Your task to perform on an android device: Check the weather Image 0: 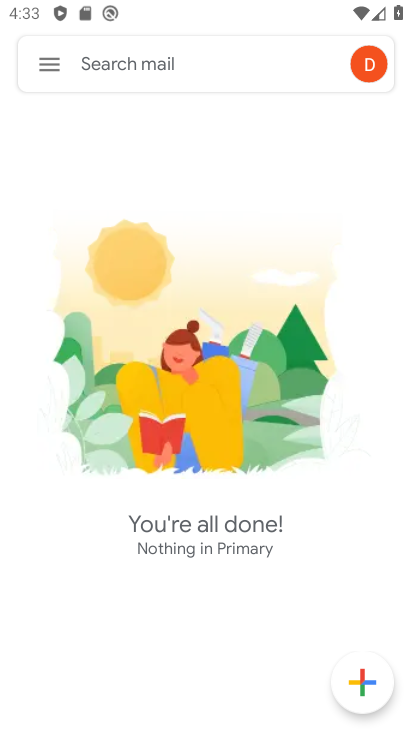
Step 0: press home button
Your task to perform on an android device: Check the weather Image 1: 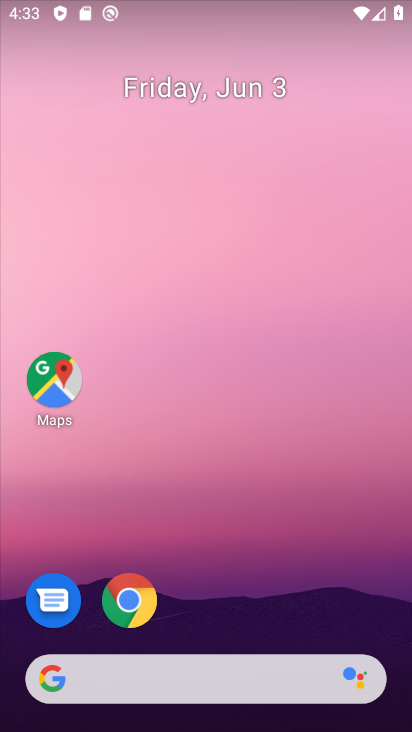
Step 1: click (160, 676)
Your task to perform on an android device: Check the weather Image 2: 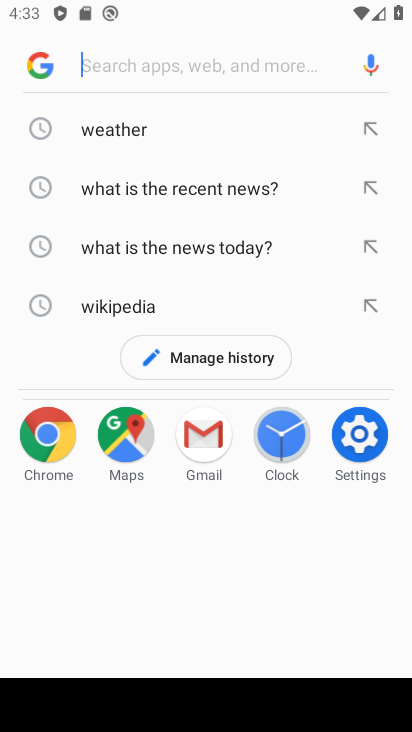
Step 2: click (144, 133)
Your task to perform on an android device: Check the weather Image 3: 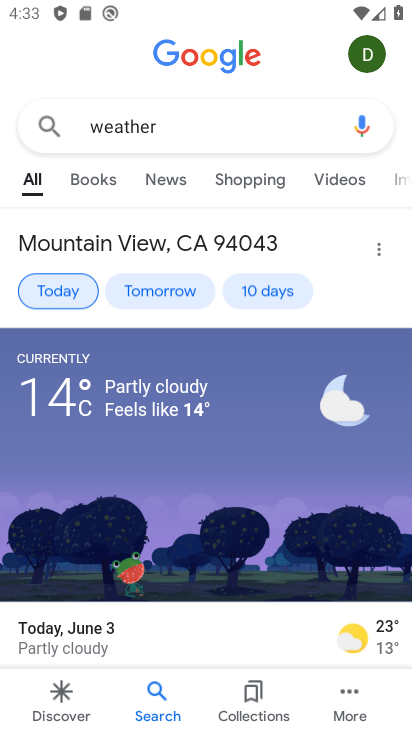
Step 3: task complete